Your task to perform on an android device: stop showing notifications on the lock screen Image 0: 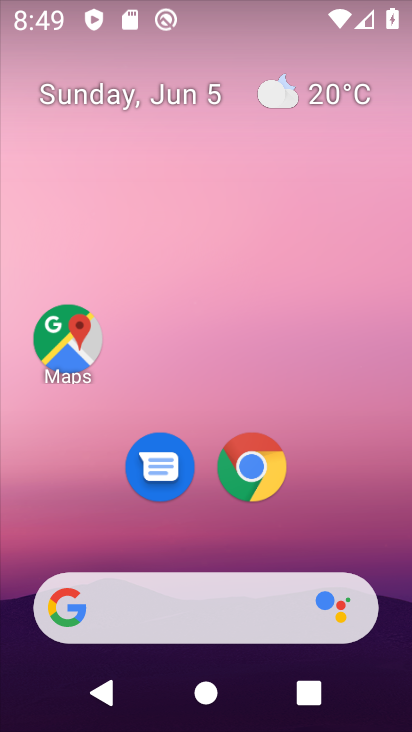
Step 0: drag from (331, 534) to (378, 34)
Your task to perform on an android device: stop showing notifications on the lock screen Image 1: 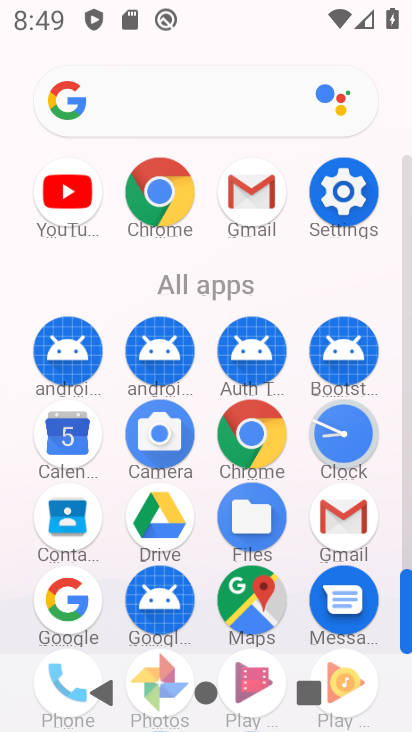
Step 1: click (344, 180)
Your task to perform on an android device: stop showing notifications on the lock screen Image 2: 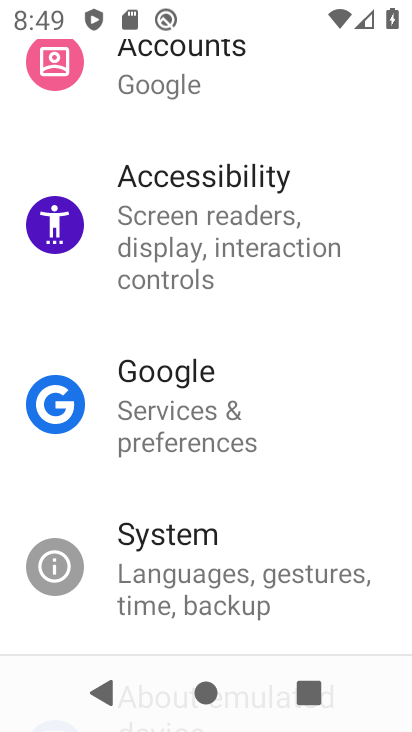
Step 2: drag from (193, 196) to (197, 590)
Your task to perform on an android device: stop showing notifications on the lock screen Image 3: 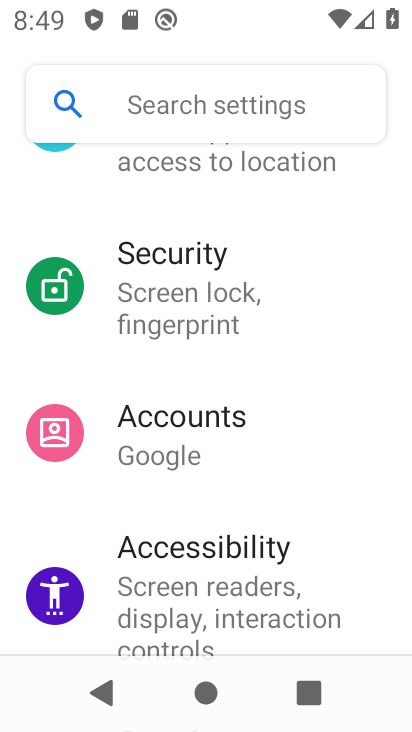
Step 3: drag from (182, 257) to (183, 608)
Your task to perform on an android device: stop showing notifications on the lock screen Image 4: 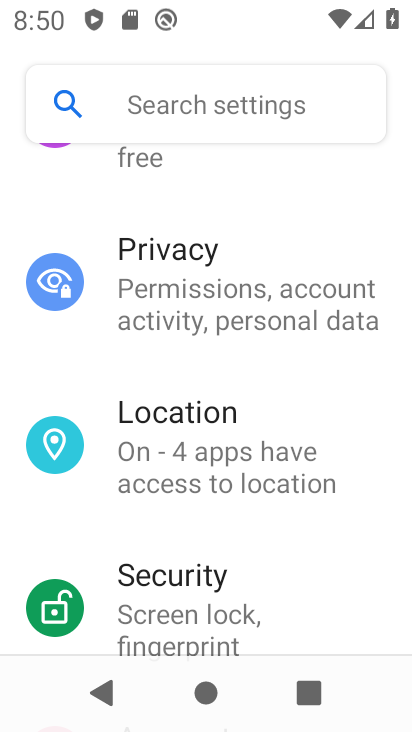
Step 4: drag from (215, 321) to (236, 677)
Your task to perform on an android device: stop showing notifications on the lock screen Image 5: 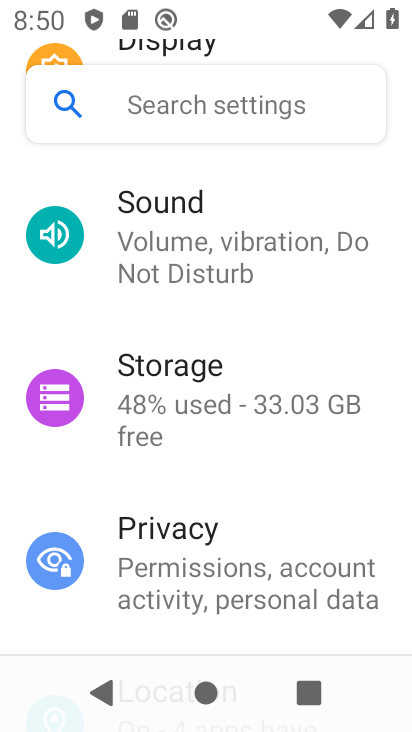
Step 5: drag from (245, 317) to (284, 731)
Your task to perform on an android device: stop showing notifications on the lock screen Image 6: 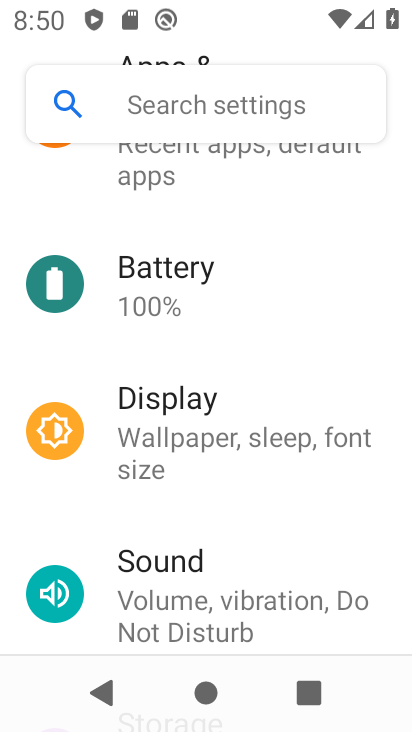
Step 6: drag from (257, 343) to (285, 727)
Your task to perform on an android device: stop showing notifications on the lock screen Image 7: 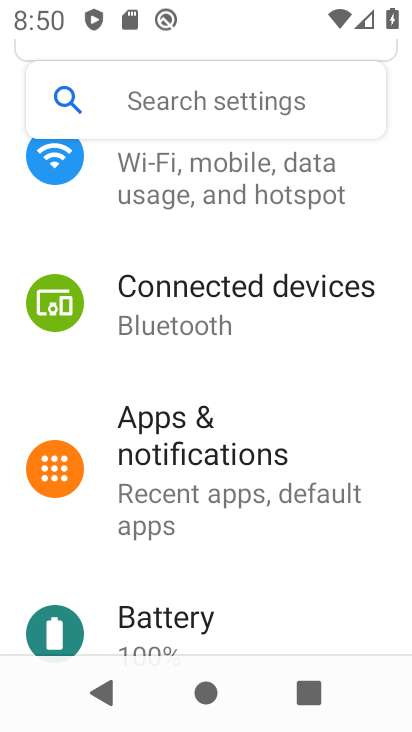
Step 7: click (227, 508)
Your task to perform on an android device: stop showing notifications on the lock screen Image 8: 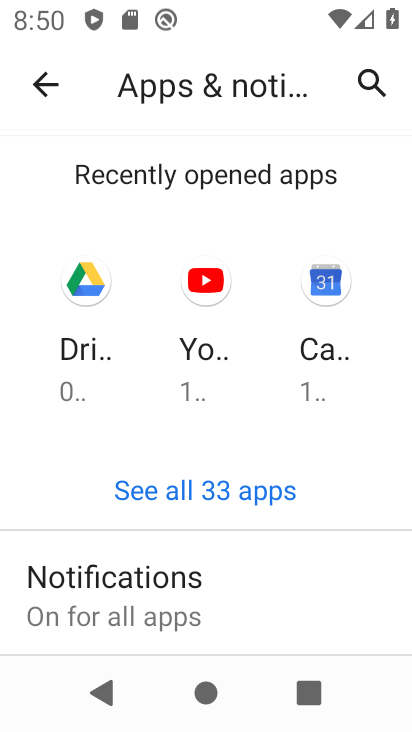
Step 8: click (201, 610)
Your task to perform on an android device: stop showing notifications on the lock screen Image 9: 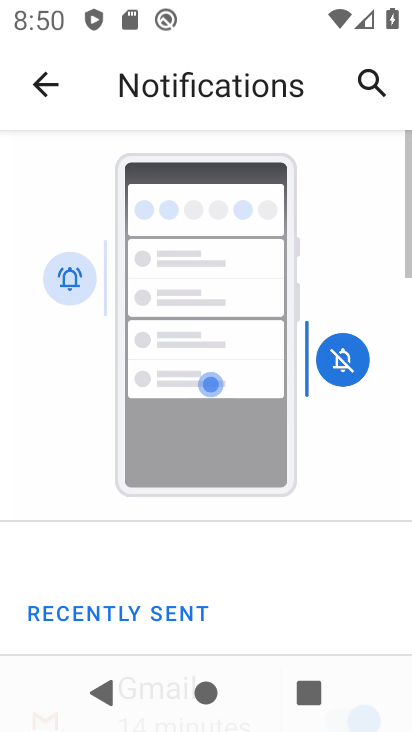
Step 9: drag from (171, 577) to (221, 109)
Your task to perform on an android device: stop showing notifications on the lock screen Image 10: 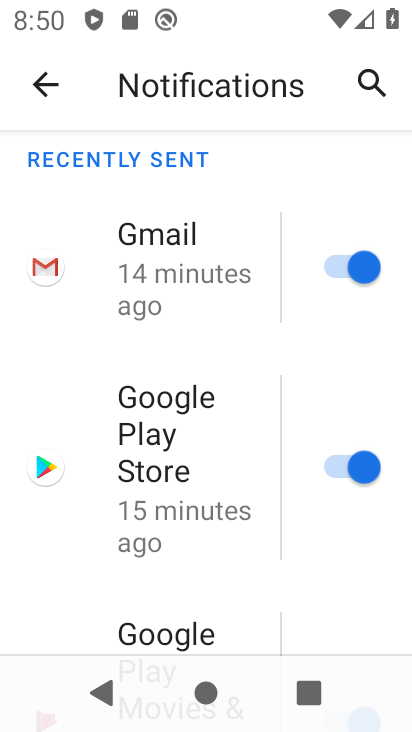
Step 10: drag from (163, 539) to (266, 110)
Your task to perform on an android device: stop showing notifications on the lock screen Image 11: 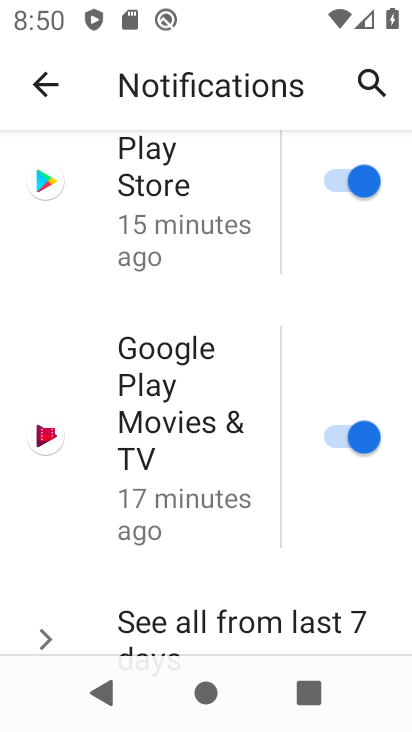
Step 11: drag from (120, 552) to (154, 93)
Your task to perform on an android device: stop showing notifications on the lock screen Image 12: 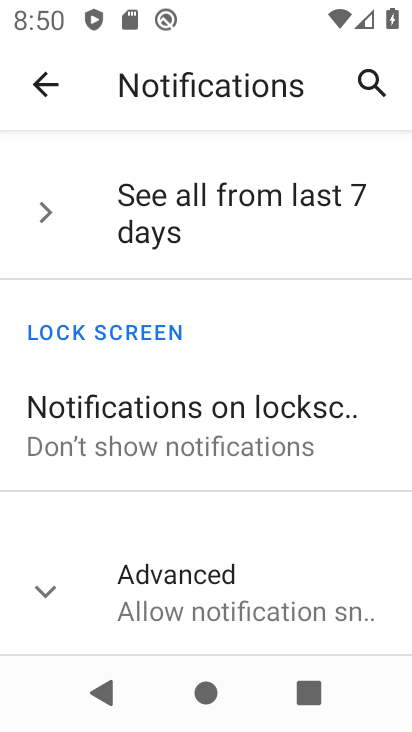
Step 12: click (139, 439)
Your task to perform on an android device: stop showing notifications on the lock screen Image 13: 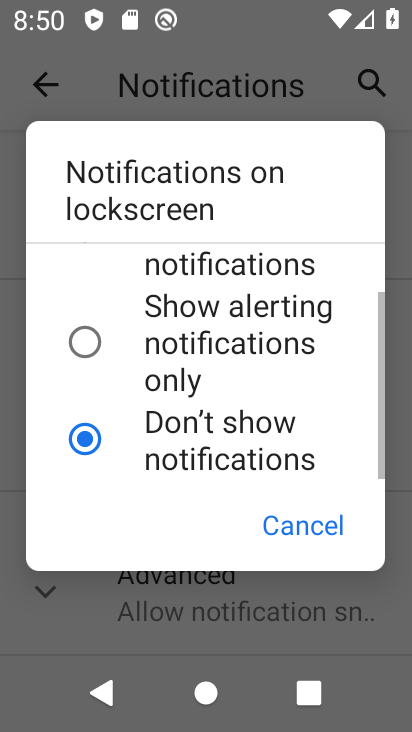
Step 13: click (179, 460)
Your task to perform on an android device: stop showing notifications on the lock screen Image 14: 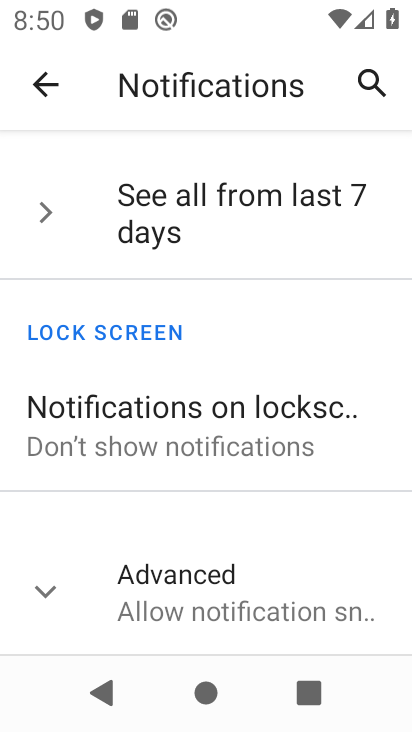
Step 14: task complete